Your task to perform on an android device: open the mobile data screen to see how much data has been used Image 0: 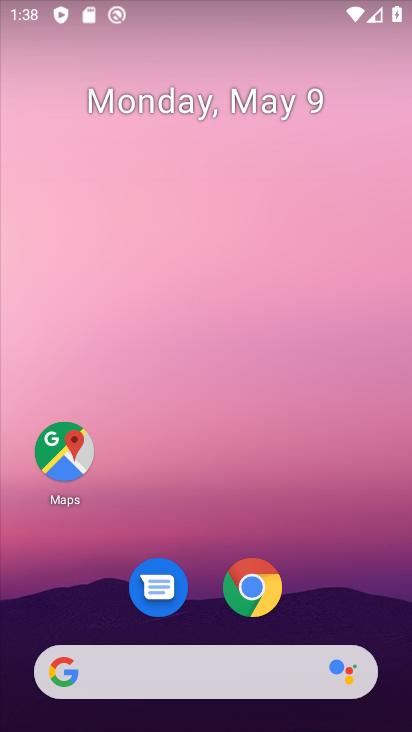
Step 0: drag from (196, 566) to (231, 101)
Your task to perform on an android device: open the mobile data screen to see how much data has been used Image 1: 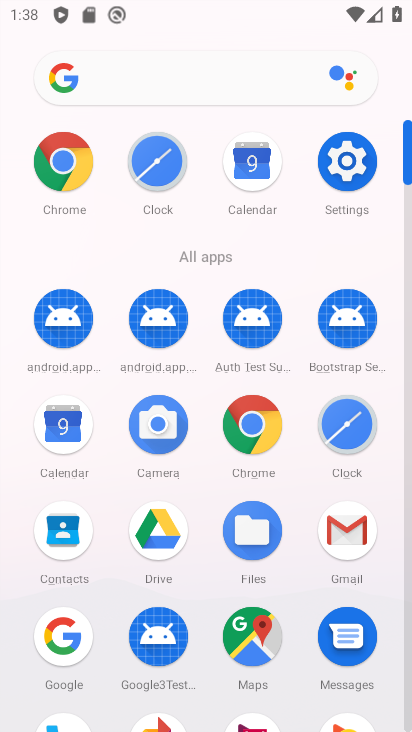
Step 1: click (346, 161)
Your task to perform on an android device: open the mobile data screen to see how much data has been used Image 2: 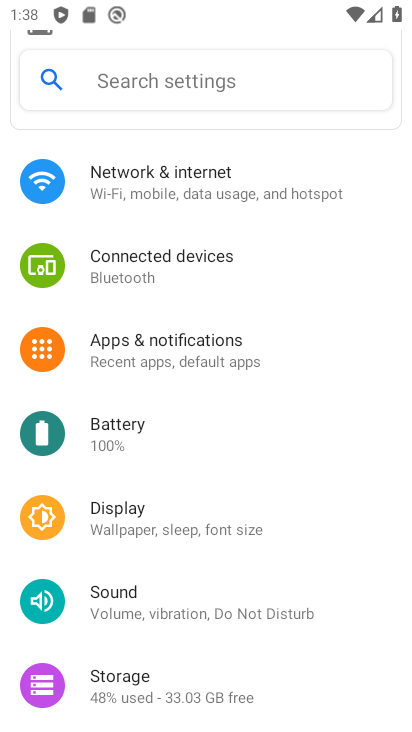
Step 2: drag from (217, 186) to (179, 572)
Your task to perform on an android device: open the mobile data screen to see how much data has been used Image 3: 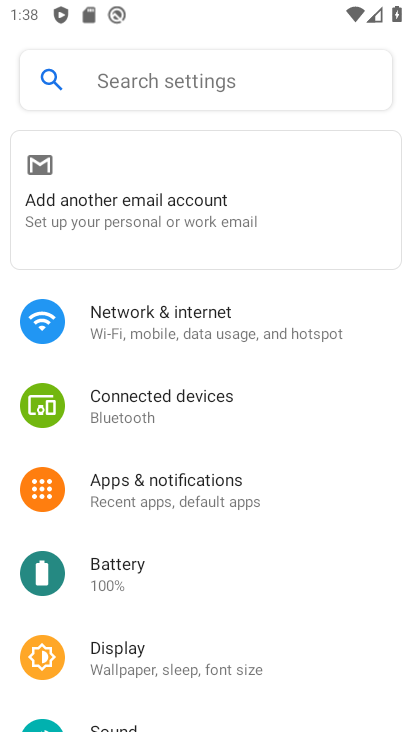
Step 3: click (214, 336)
Your task to perform on an android device: open the mobile data screen to see how much data has been used Image 4: 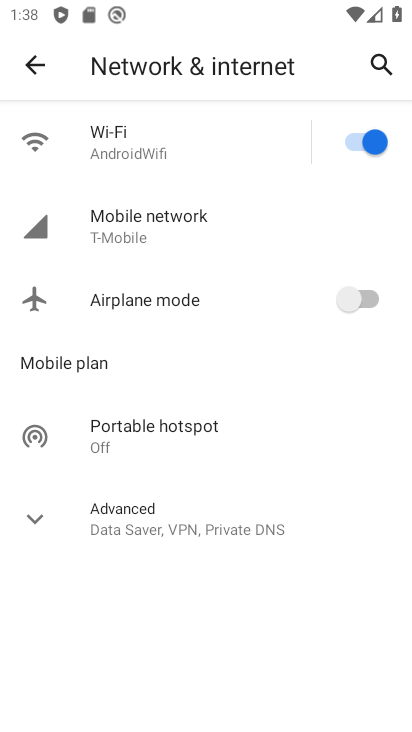
Step 4: click (171, 221)
Your task to perform on an android device: open the mobile data screen to see how much data has been used Image 5: 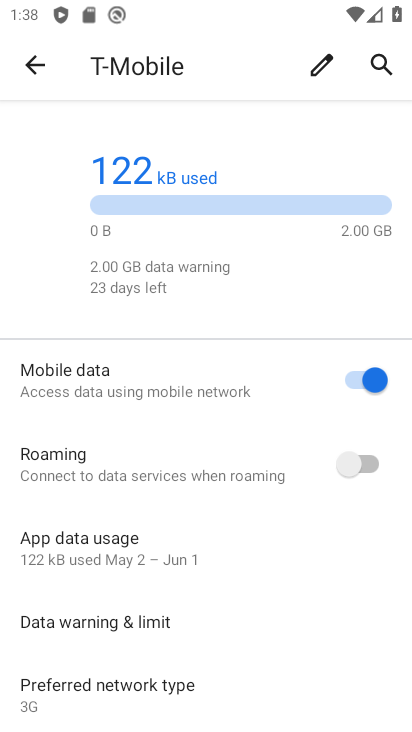
Step 5: task complete